Your task to perform on an android device: refresh tabs in the chrome app Image 0: 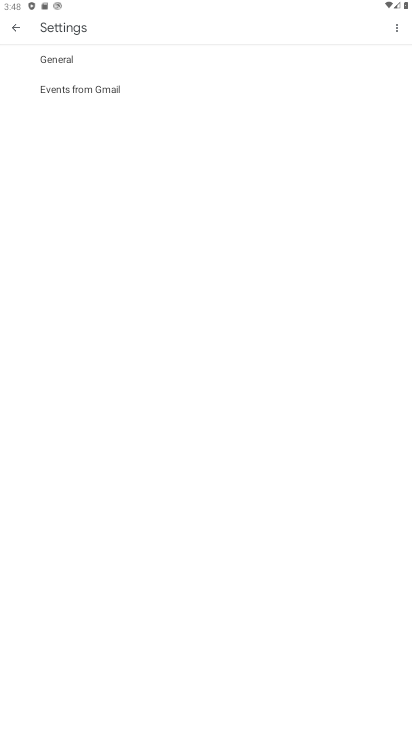
Step 0: press home button
Your task to perform on an android device: refresh tabs in the chrome app Image 1: 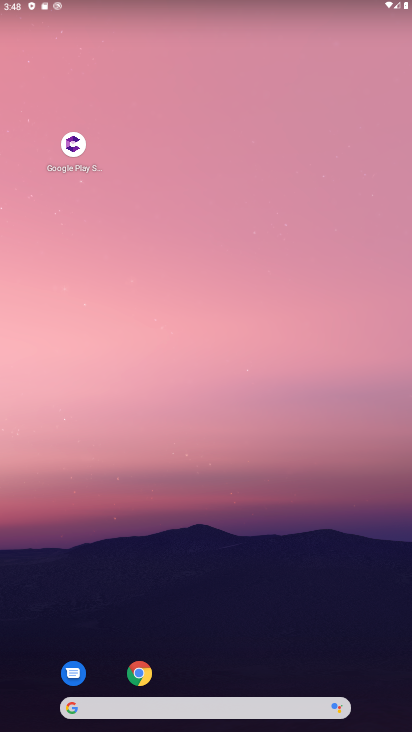
Step 1: drag from (375, 696) to (165, 0)
Your task to perform on an android device: refresh tabs in the chrome app Image 2: 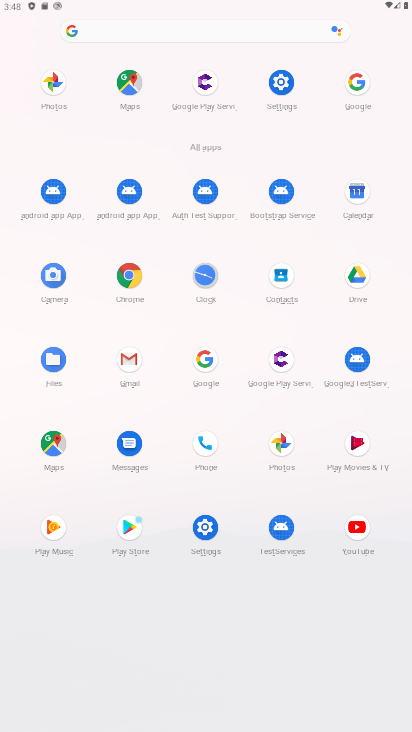
Step 2: click (127, 285)
Your task to perform on an android device: refresh tabs in the chrome app Image 3: 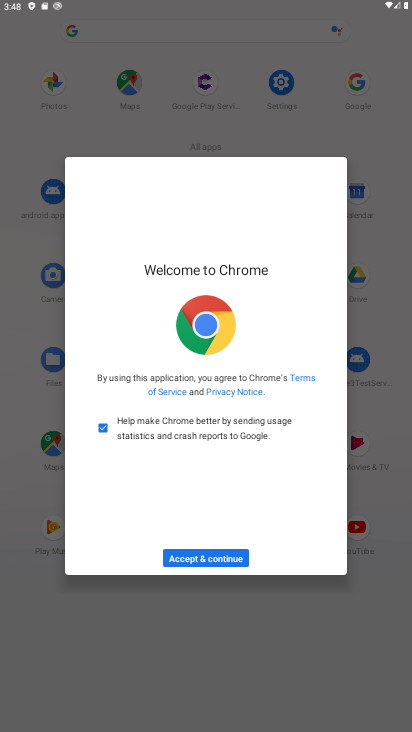
Step 3: click (209, 552)
Your task to perform on an android device: refresh tabs in the chrome app Image 4: 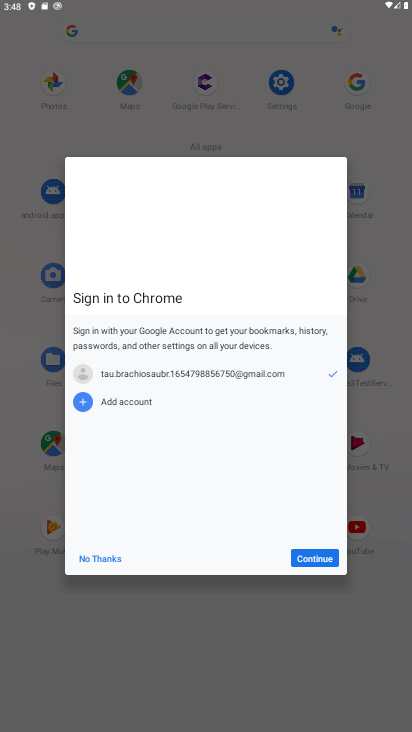
Step 4: click (301, 561)
Your task to perform on an android device: refresh tabs in the chrome app Image 5: 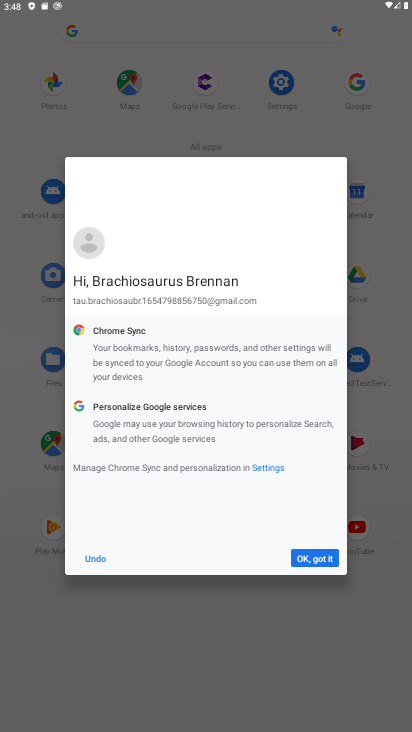
Step 5: click (301, 561)
Your task to perform on an android device: refresh tabs in the chrome app Image 6: 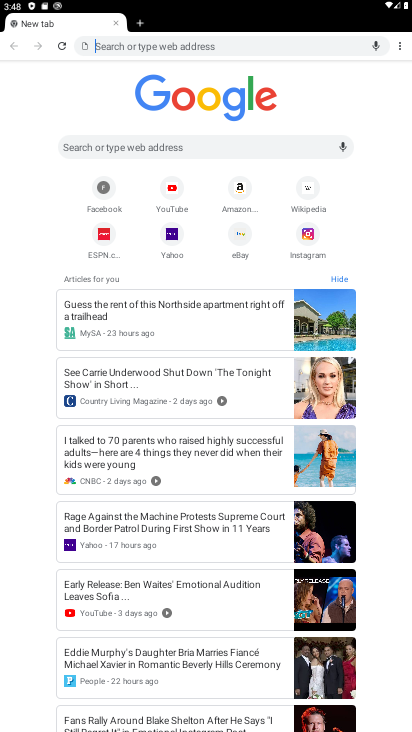
Step 6: click (59, 46)
Your task to perform on an android device: refresh tabs in the chrome app Image 7: 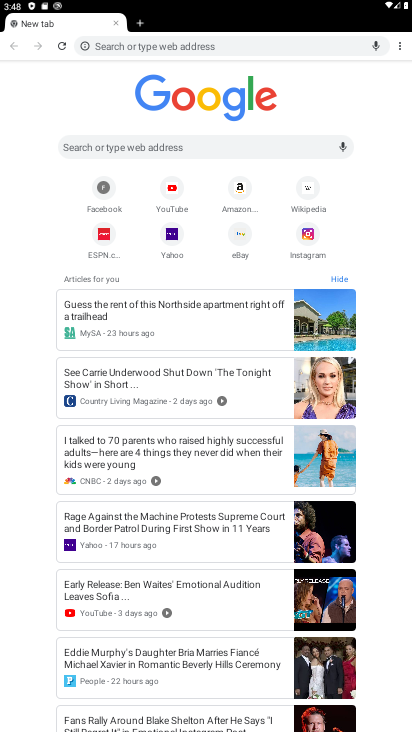
Step 7: task complete